Your task to perform on an android device: turn on location history Image 0: 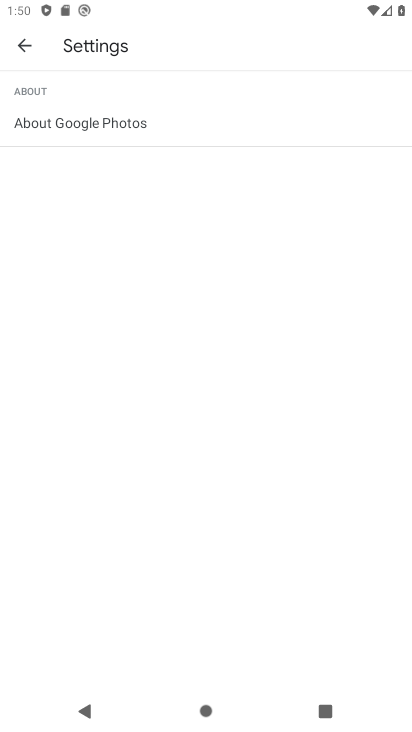
Step 0: press home button
Your task to perform on an android device: turn on location history Image 1: 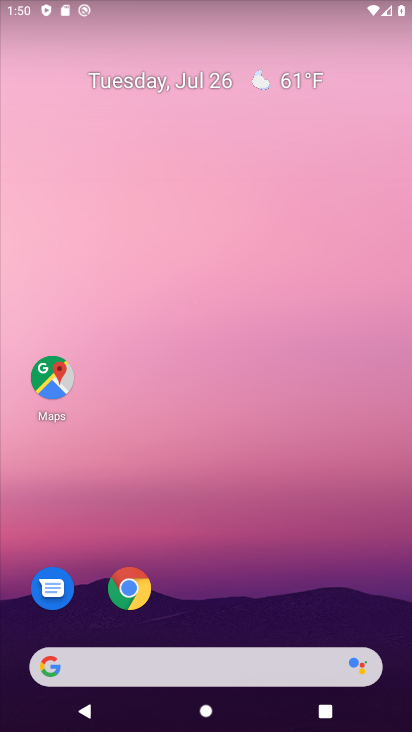
Step 1: drag from (209, 570) to (323, 42)
Your task to perform on an android device: turn on location history Image 2: 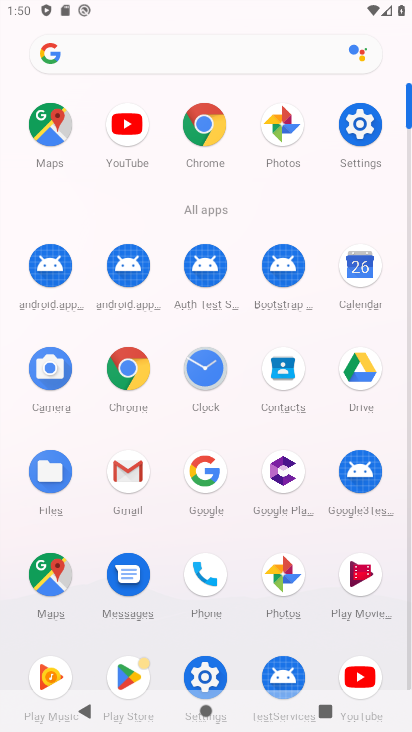
Step 2: click (343, 137)
Your task to perform on an android device: turn on location history Image 3: 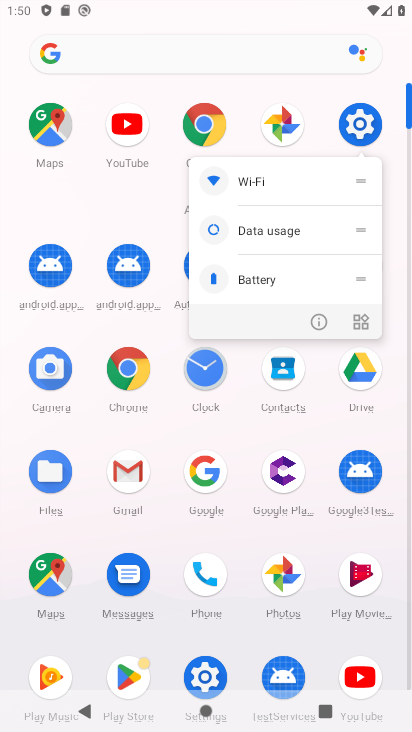
Step 3: click (343, 137)
Your task to perform on an android device: turn on location history Image 4: 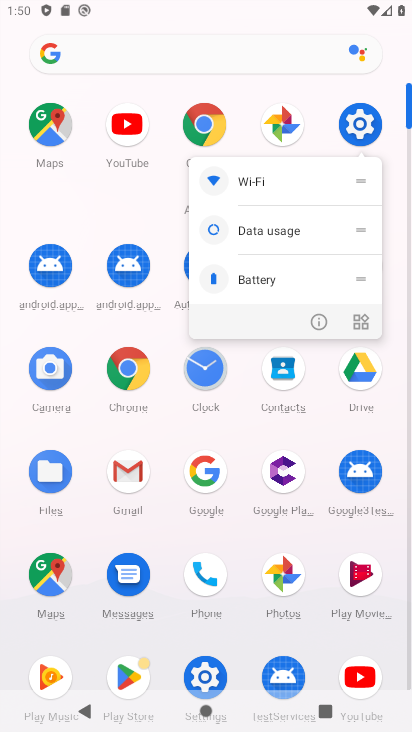
Step 4: click (359, 127)
Your task to perform on an android device: turn on location history Image 5: 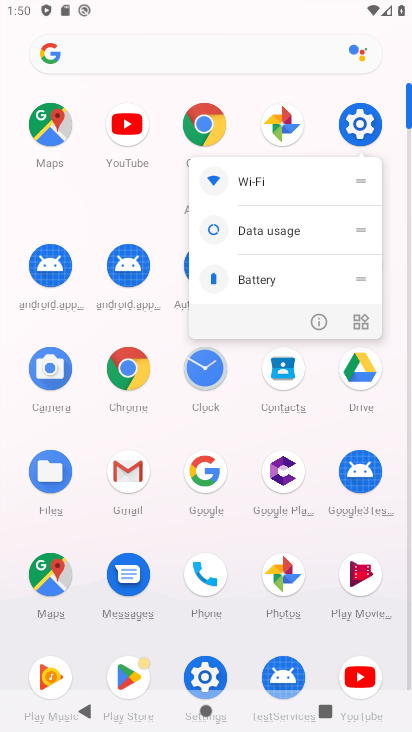
Step 5: click (373, 124)
Your task to perform on an android device: turn on location history Image 6: 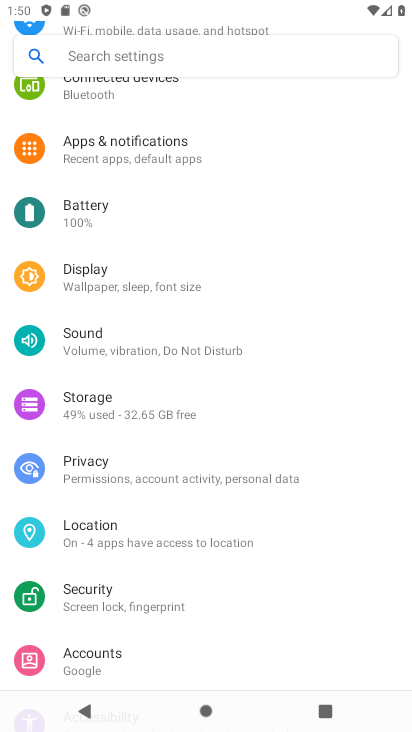
Step 6: click (63, 540)
Your task to perform on an android device: turn on location history Image 7: 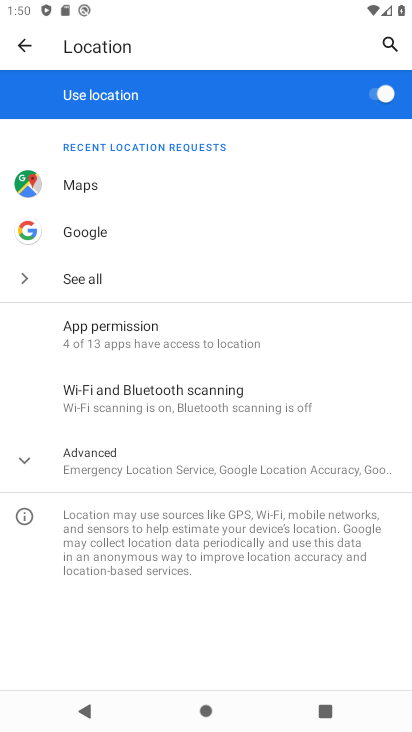
Step 7: click (125, 456)
Your task to perform on an android device: turn on location history Image 8: 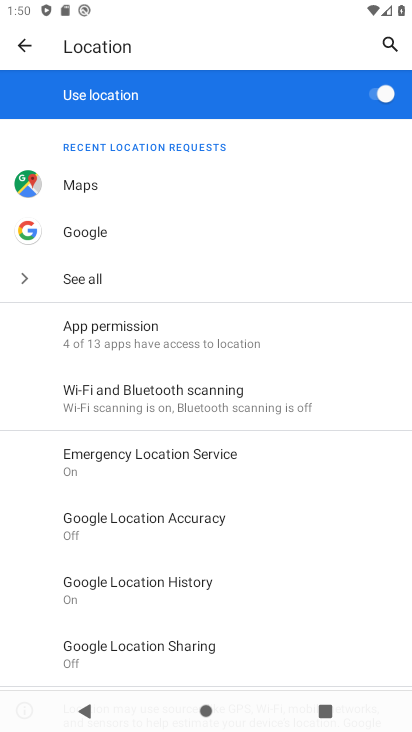
Step 8: click (89, 593)
Your task to perform on an android device: turn on location history Image 9: 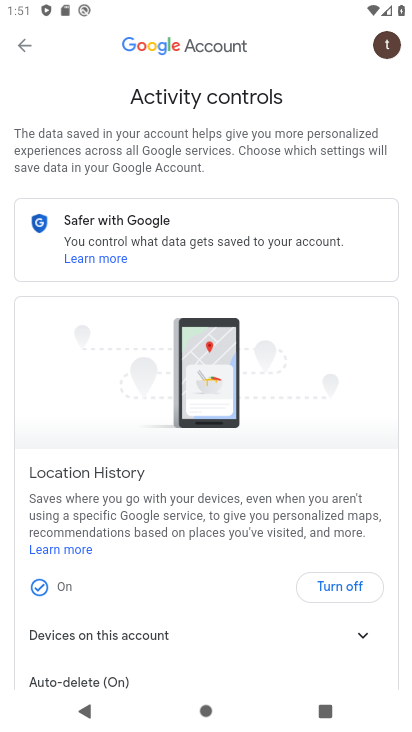
Step 9: task complete